Your task to perform on an android device: Go to privacy settings Image 0: 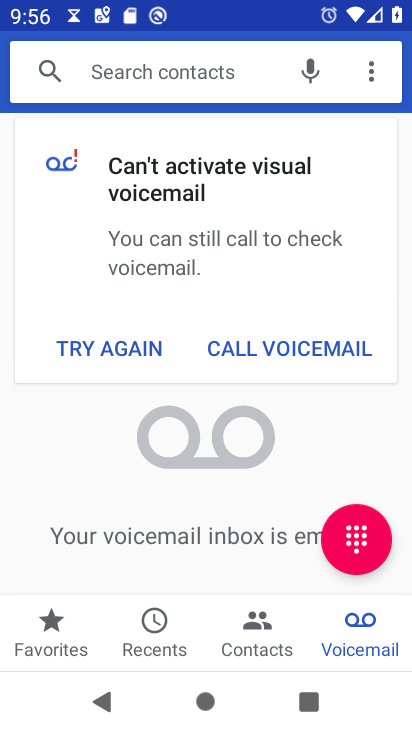
Step 0: press home button
Your task to perform on an android device: Go to privacy settings Image 1: 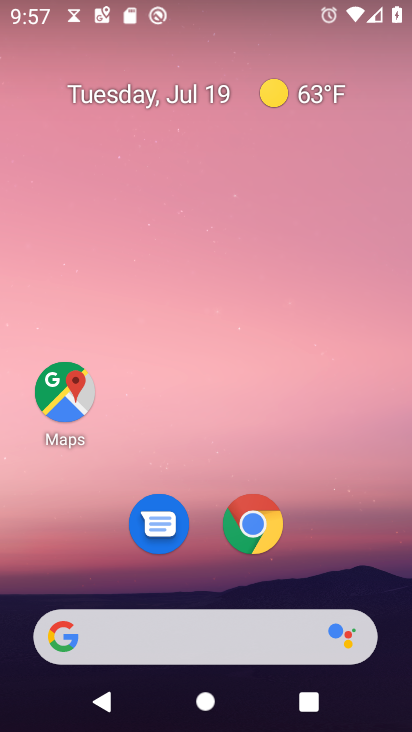
Step 1: drag from (238, 654) to (283, 58)
Your task to perform on an android device: Go to privacy settings Image 2: 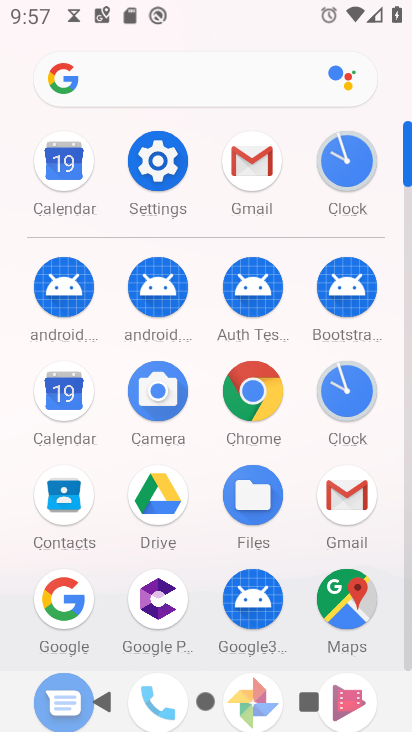
Step 2: click (155, 147)
Your task to perform on an android device: Go to privacy settings Image 3: 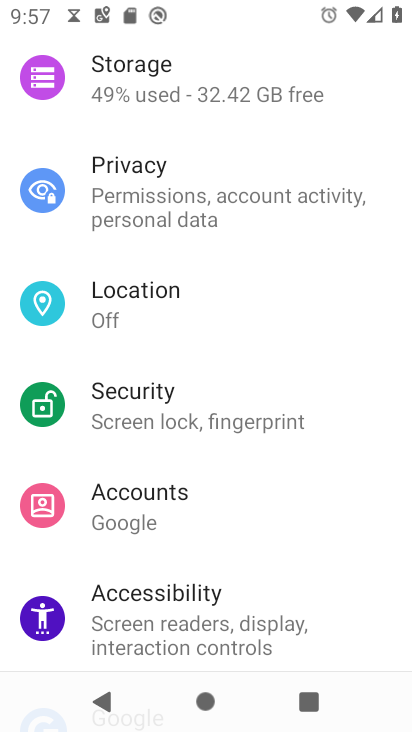
Step 3: click (152, 205)
Your task to perform on an android device: Go to privacy settings Image 4: 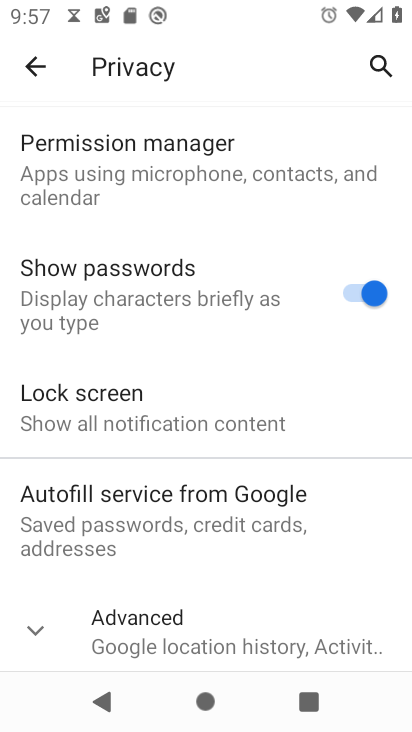
Step 4: task complete